Your task to perform on an android device: open app "Google Chat" Image 0: 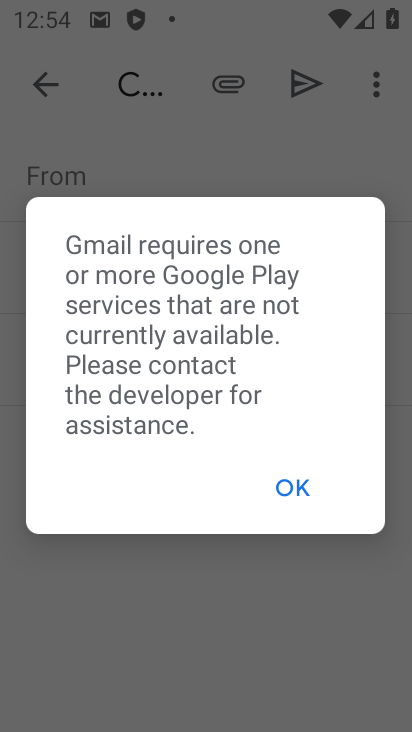
Step 0: drag from (126, 552) to (261, 5)
Your task to perform on an android device: open app "Google Chat" Image 1: 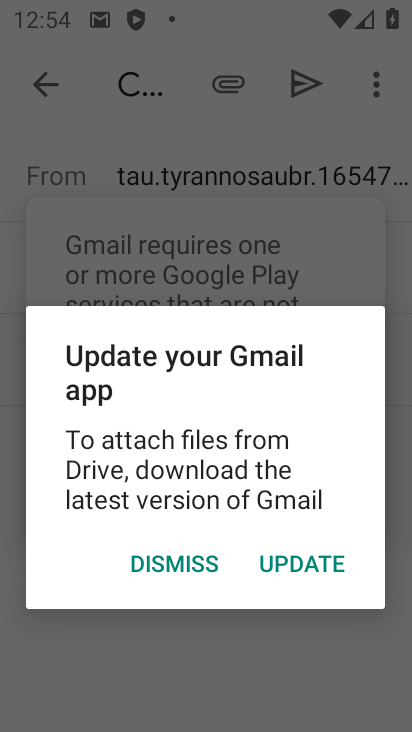
Step 1: press back button
Your task to perform on an android device: open app "Google Chat" Image 2: 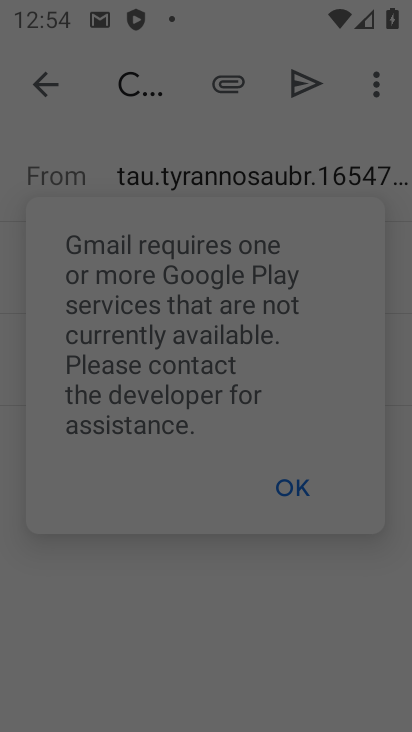
Step 2: press home button
Your task to perform on an android device: open app "Google Chat" Image 3: 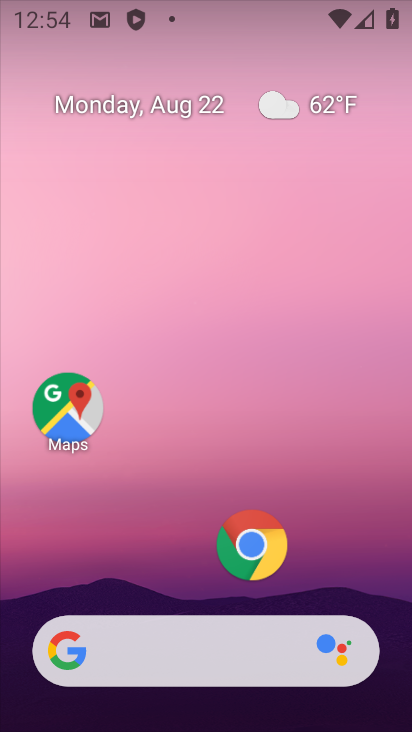
Step 3: drag from (157, 599) to (336, 3)
Your task to perform on an android device: open app "Google Chat" Image 4: 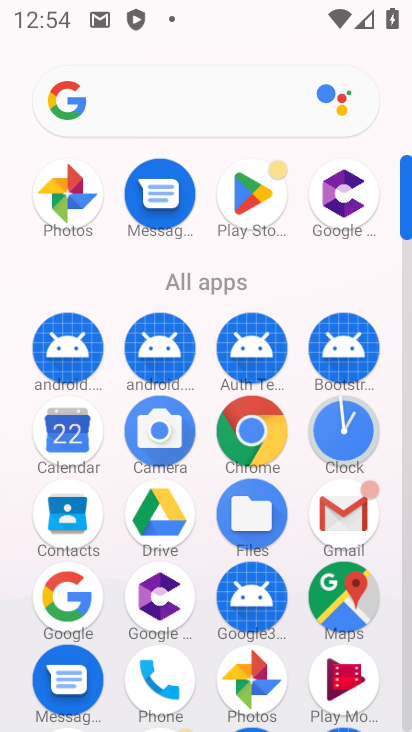
Step 4: click (261, 190)
Your task to perform on an android device: open app "Google Chat" Image 5: 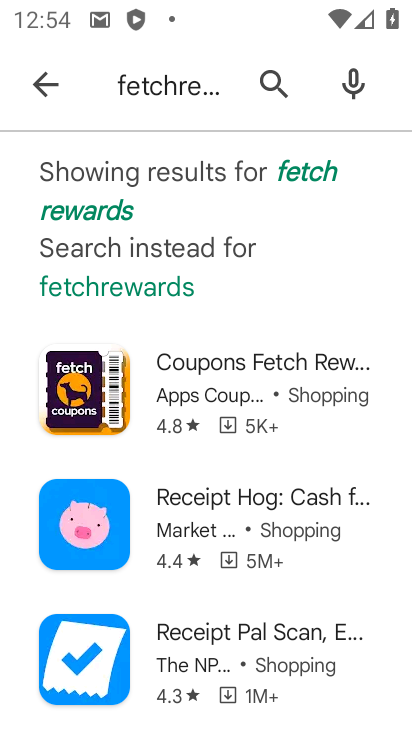
Step 5: click (260, 83)
Your task to perform on an android device: open app "Google Chat" Image 6: 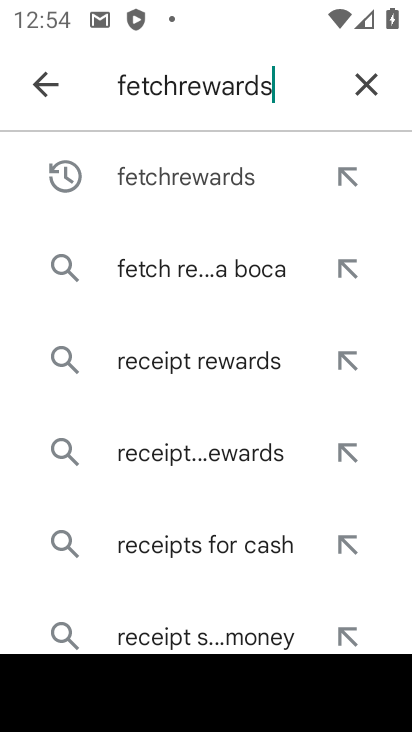
Step 6: click (357, 75)
Your task to perform on an android device: open app "Google Chat" Image 7: 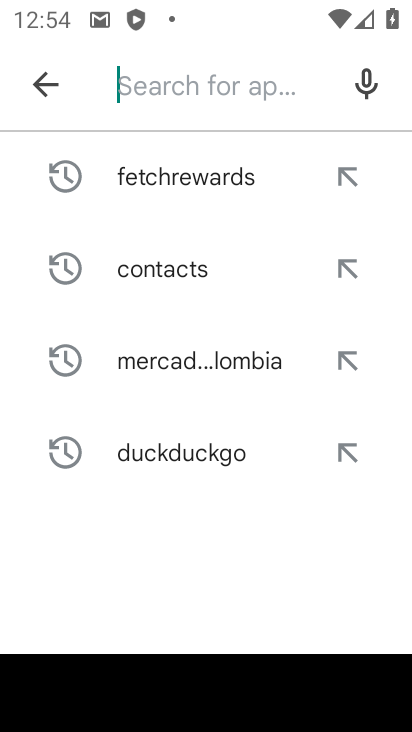
Step 7: click (150, 85)
Your task to perform on an android device: open app "Google Chat" Image 8: 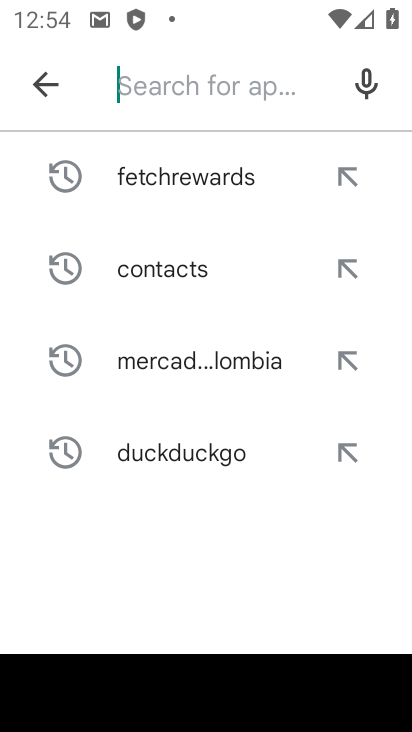
Step 8: type "Google Chat"
Your task to perform on an android device: open app "Google Chat" Image 9: 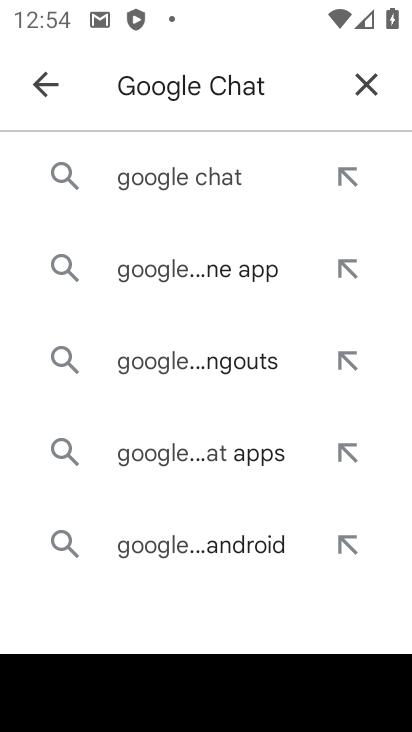
Step 9: click (180, 177)
Your task to perform on an android device: open app "Google Chat" Image 10: 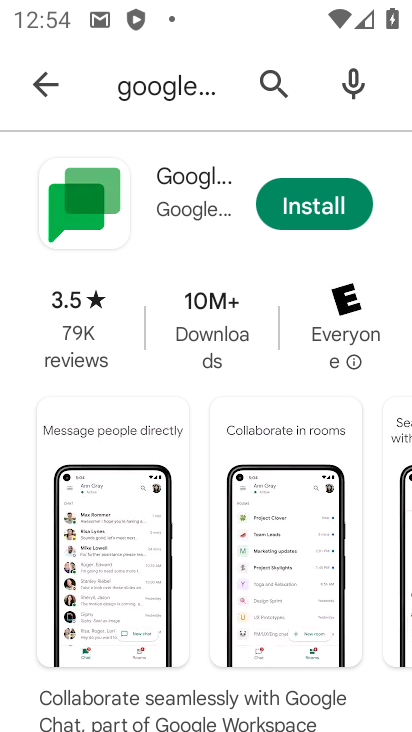
Step 10: click (187, 192)
Your task to perform on an android device: open app "Google Chat" Image 11: 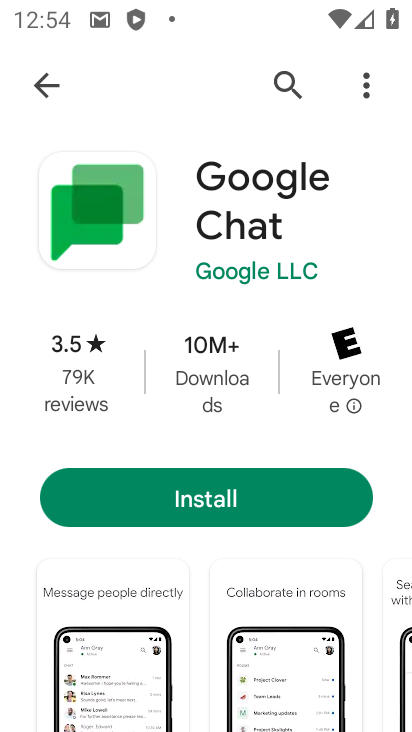
Step 11: task complete